Your task to perform on an android device: see tabs open on other devices in the chrome app Image 0: 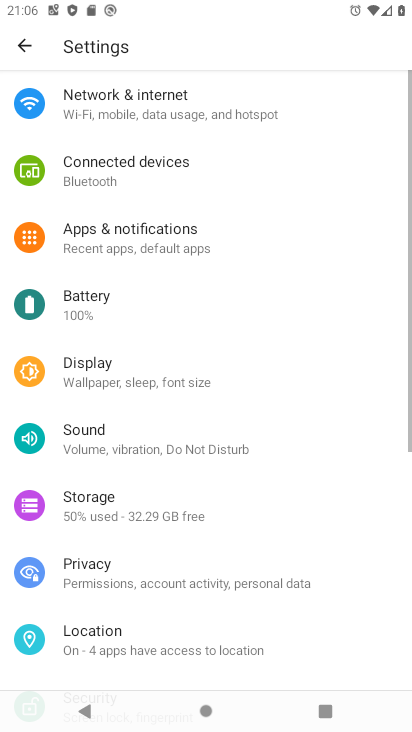
Step 0: press home button
Your task to perform on an android device: see tabs open on other devices in the chrome app Image 1: 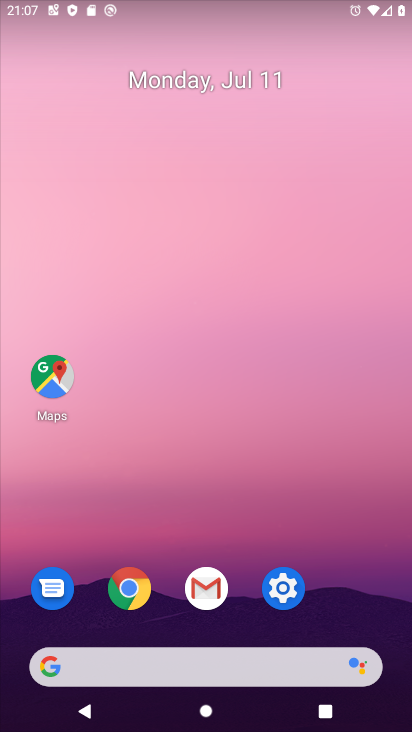
Step 1: click (126, 580)
Your task to perform on an android device: see tabs open on other devices in the chrome app Image 2: 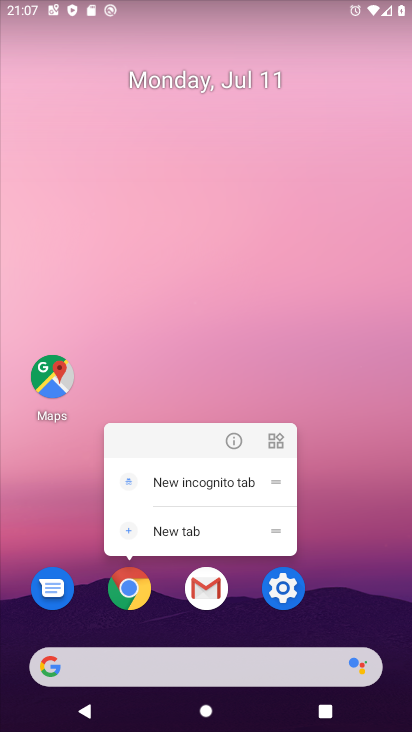
Step 2: click (123, 590)
Your task to perform on an android device: see tabs open on other devices in the chrome app Image 3: 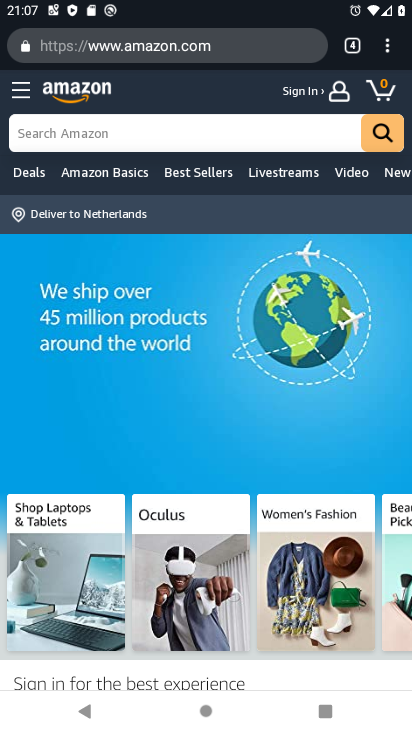
Step 3: click (354, 48)
Your task to perform on an android device: see tabs open on other devices in the chrome app Image 4: 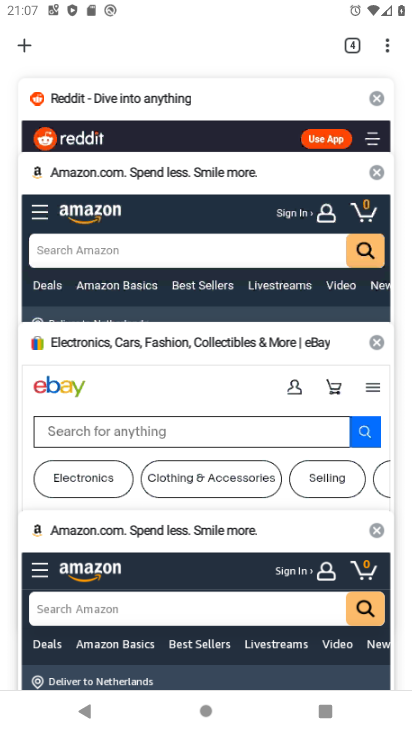
Step 4: click (23, 50)
Your task to perform on an android device: see tabs open on other devices in the chrome app Image 5: 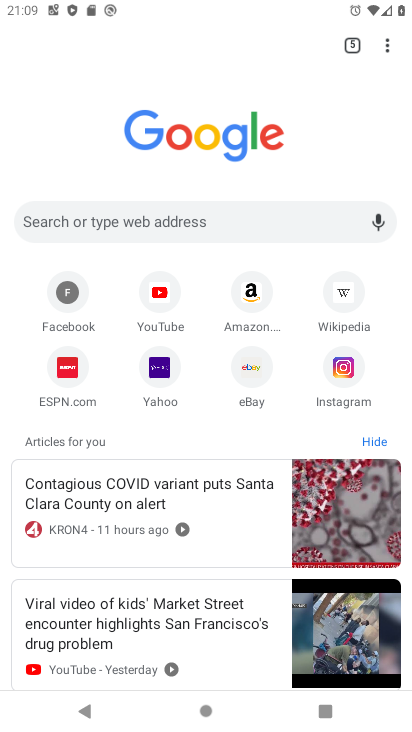
Step 5: task complete